Your task to perform on an android device: empty trash in the gmail app Image 0: 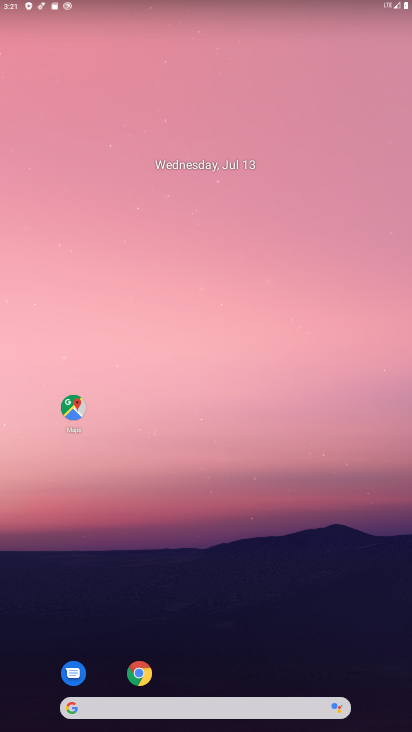
Step 0: drag from (239, 718) to (254, 168)
Your task to perform on an android device: empty trash in the gmail app Image 1: 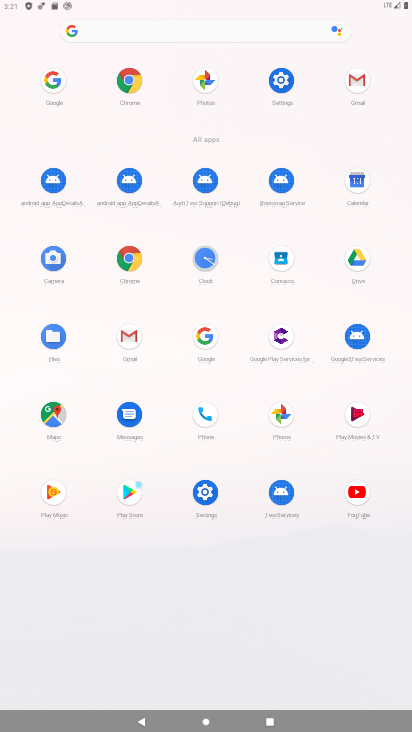
Step 1: click (132, 340)
Your task to perform on an android device: empty trash in the gmail app Image 2: 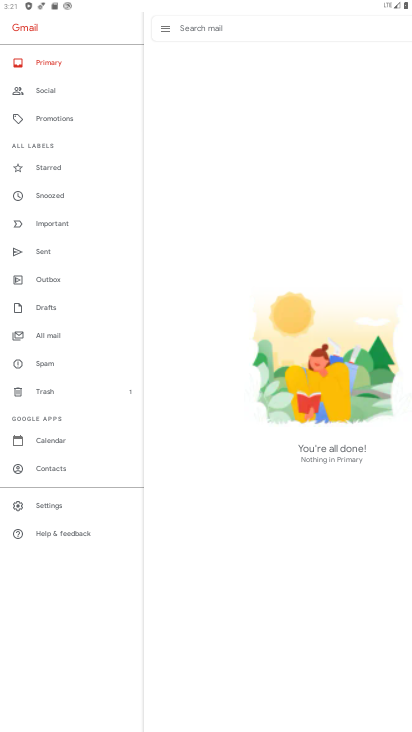
Step 2: click (42, 390)
Your task to perform on an android device: empty trash in the gmail app Image 3: 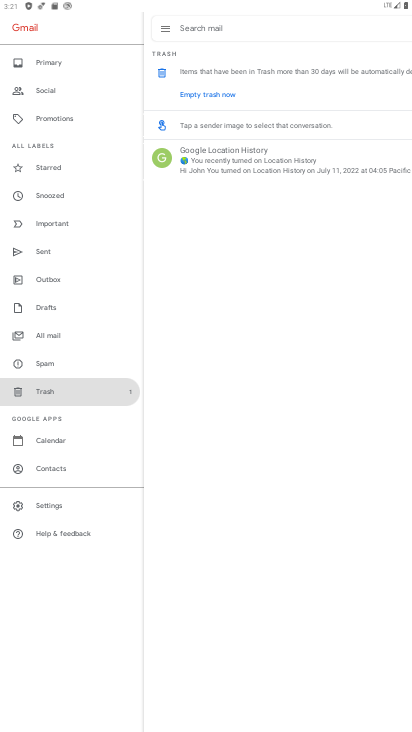
Step 3: click (209, 95)
Your task to perform on an android device: empty trash in the gmail app Image 4: 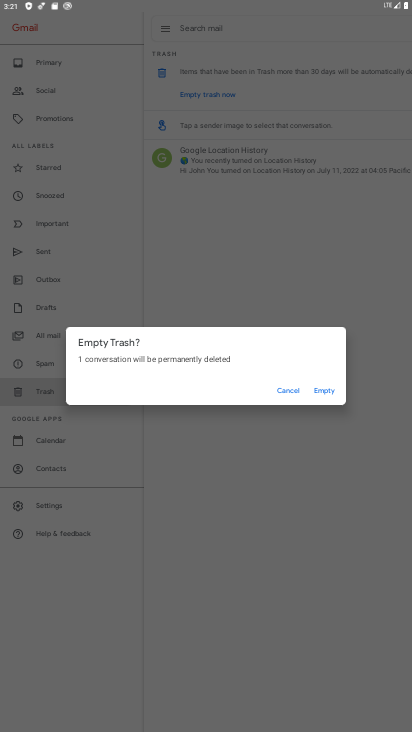
Step 4: click (326, 391)
Your task to perform on an android device: empty trash in the gmail app Image 5: 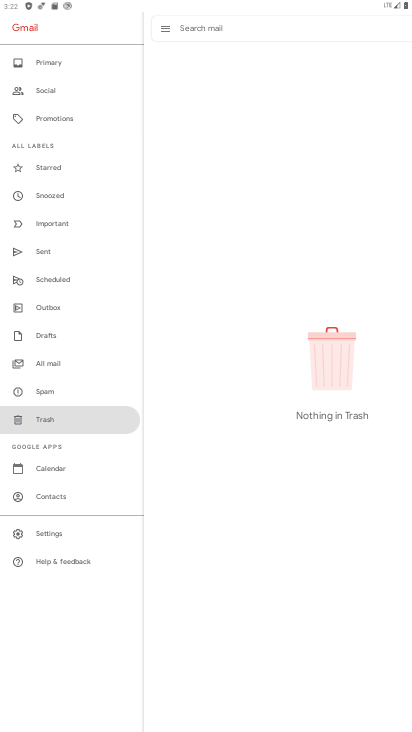
Step 5: task complete